Your task to perform on an android device: Open Chrome and go to the settings page Image 0: 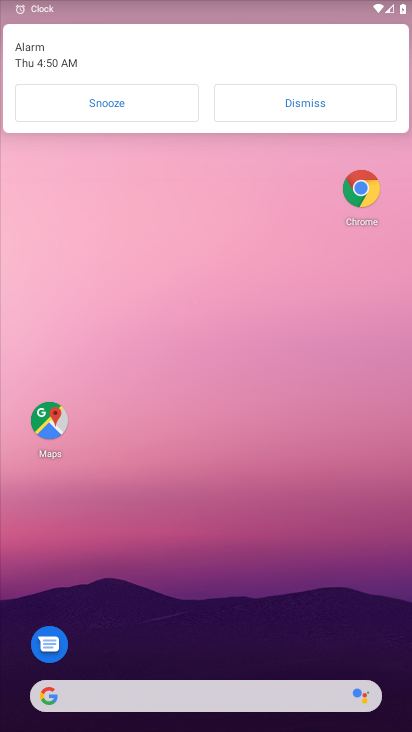
Step 0: click (319, 113)
Your task to perform on an android device: Open Chrome and go to the settings page Image 1: 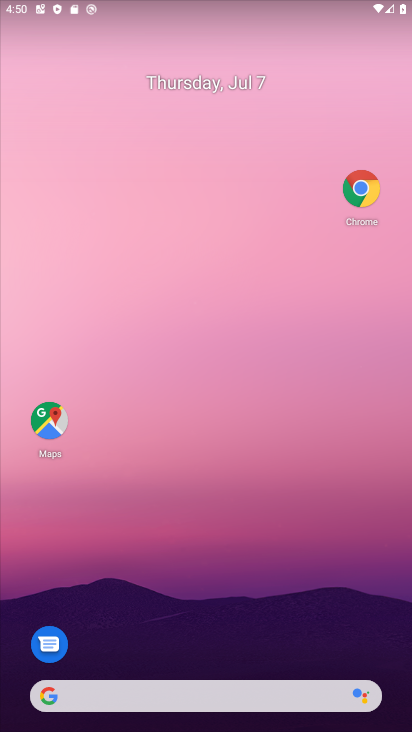
Step 1: click (364, 210)
Your task to perform on an android device: Open Chrome and go to the settings page Image 2: 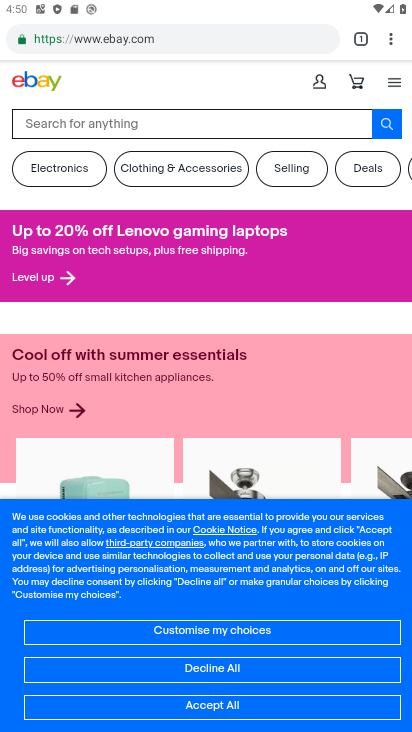
Step 2: task complete